Your task to perform on an android device: Is it going to rain today? Image 0: 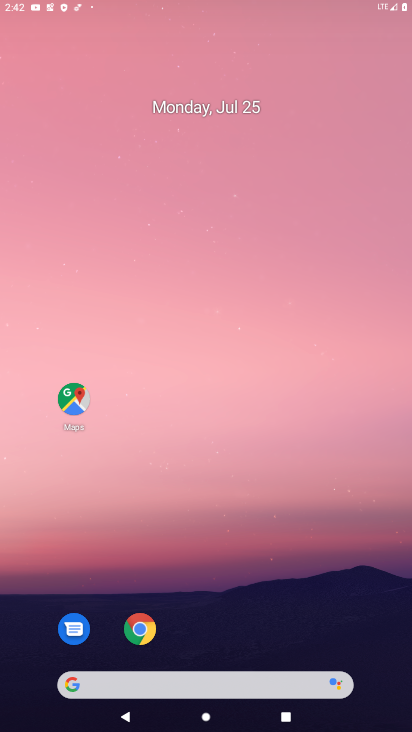
Step 0: click (312, 337)
Your task to perform on an android device: Is it going to rain today? Image 1: 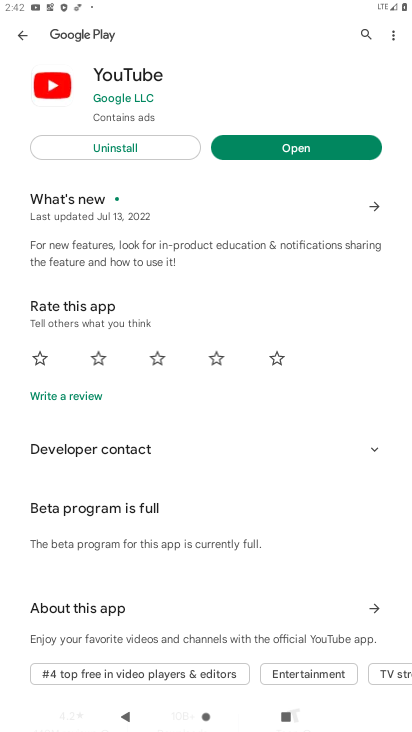
Step 1: drag from (240, 426) to (259, 142)
Your task to perform on an android device: Is it going to rain today? Image 2: 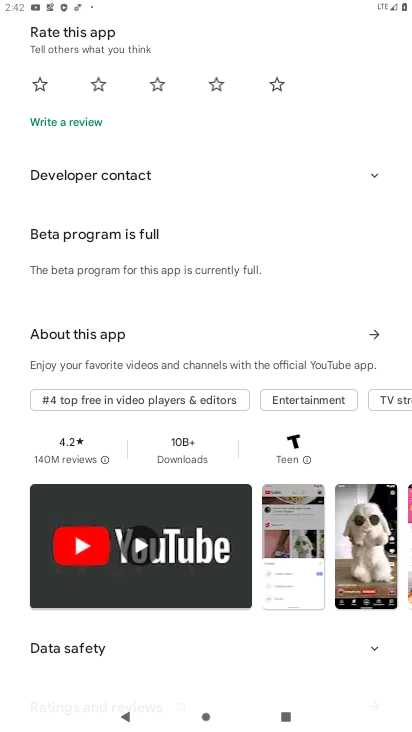
Step 2: drag from (265, 79) to (264, 479)
Your task to perform on an android device: Is it going to rain today? Image 3: 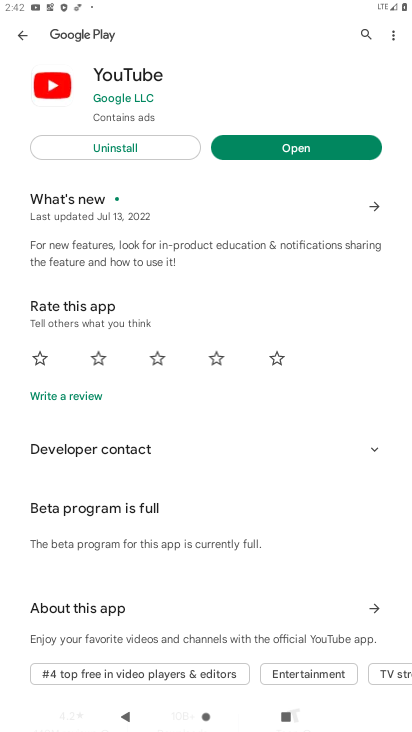
Step 3: press home button
Your task to perform on an android device: Is it going to rain today? Image 4: 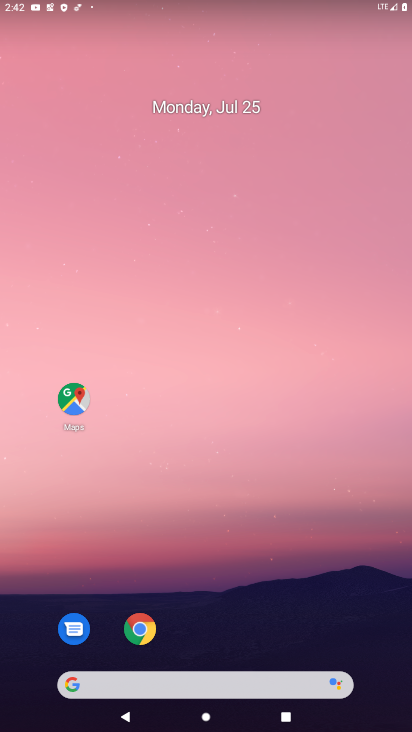
Step 4: drag from (194, 638) to (216, 298)
Your task to perform on an android device: Is it going to rain today? Image 5: 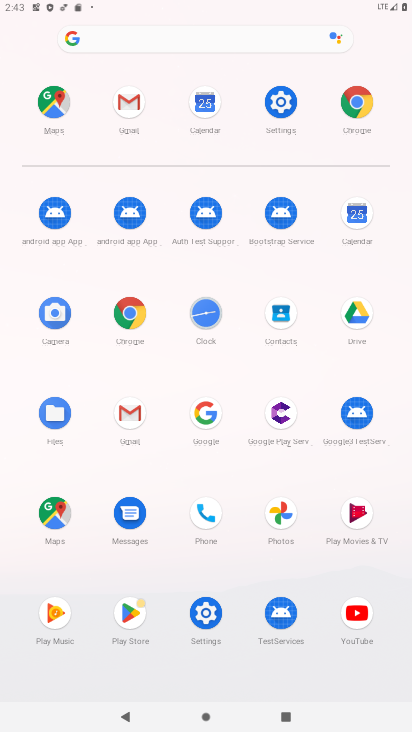
Step 5: type "Is it going to rain today?"
Your task to perform on an android device: Is it going to rain today? Image 6: 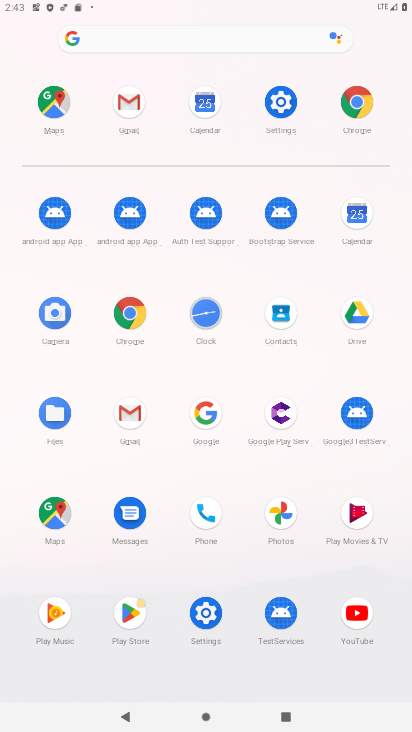
Step 6: click (152, 35)
Your task to perform on an android device: Is it going to rain today? Image 7: 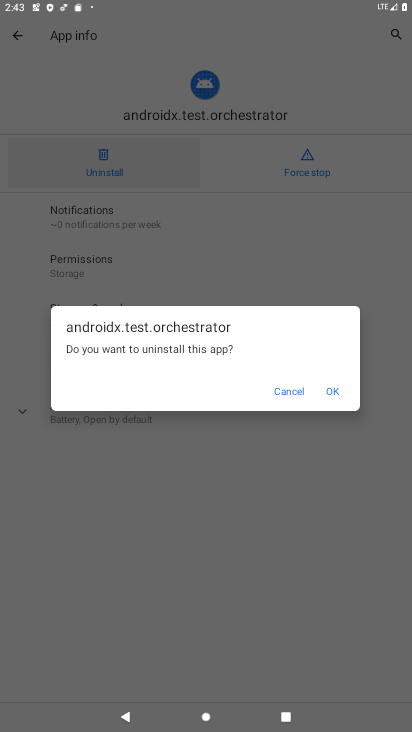
Step 7: click (104, 37)
Your task to perform on an android device: Is it going to rain today? Image 8: 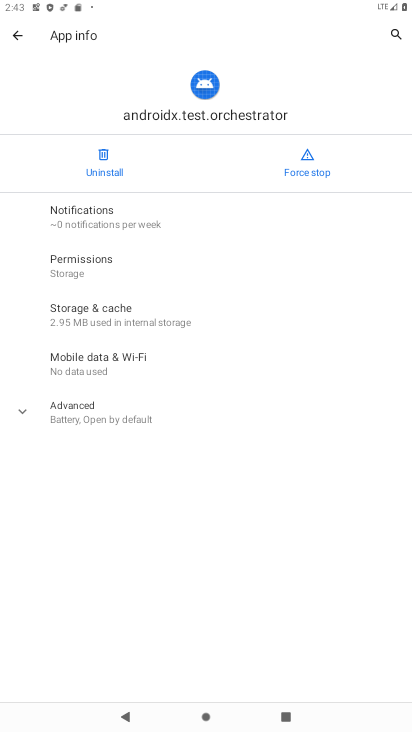
Step 8: click (16, 32)
Your task to perform on an android device: Is it going to rain today? Image 9: 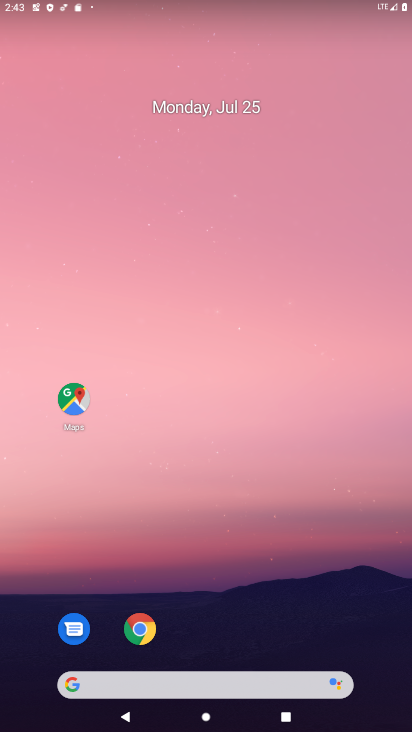
Step 9: drag from (203, 637) to (221, 117)
Your task to perform on an android device: Is it going to rain today? Image 10: 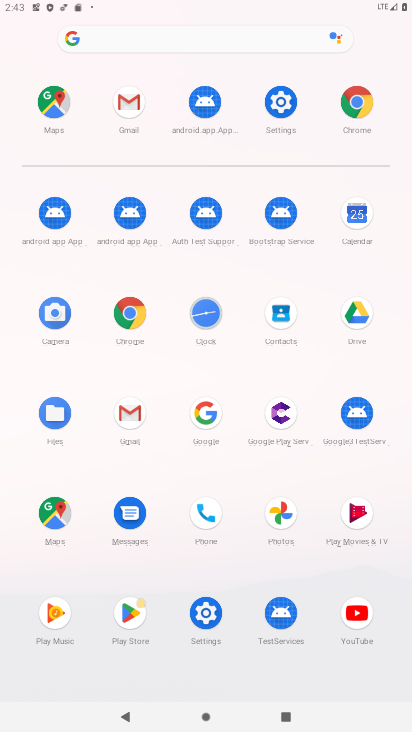
Step 10: click (139, 38)
Your task to perform on an android device: Is it going to rain today? Image 11: 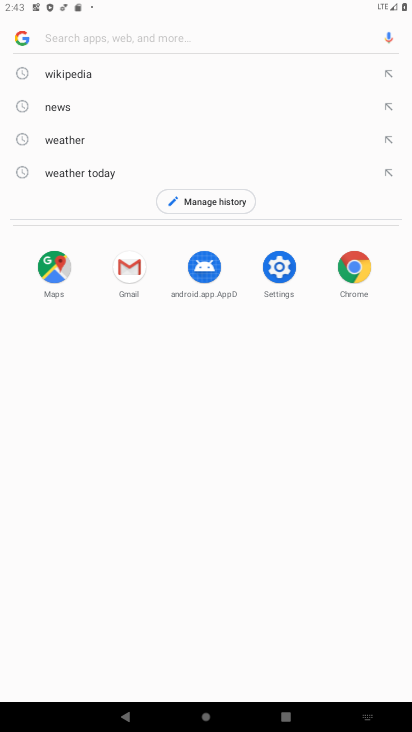
Step 11: type "Is it going to rain today?"
Your task to perform on an android device: Is it going to rain today? Image 12: 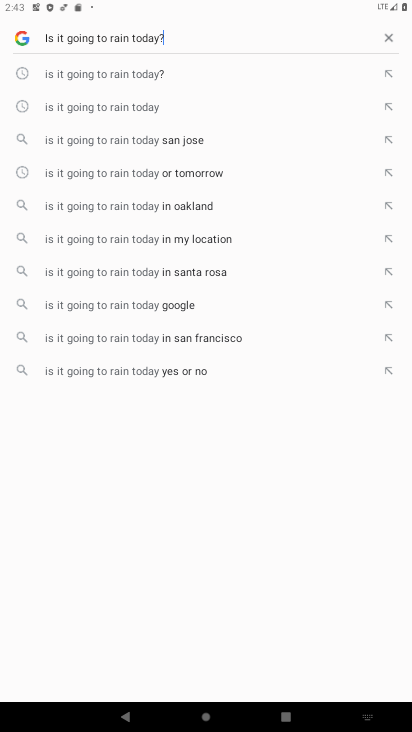
Step 12: type ""
Your task to perform on an android device: Is it going to rain today? Image 13: 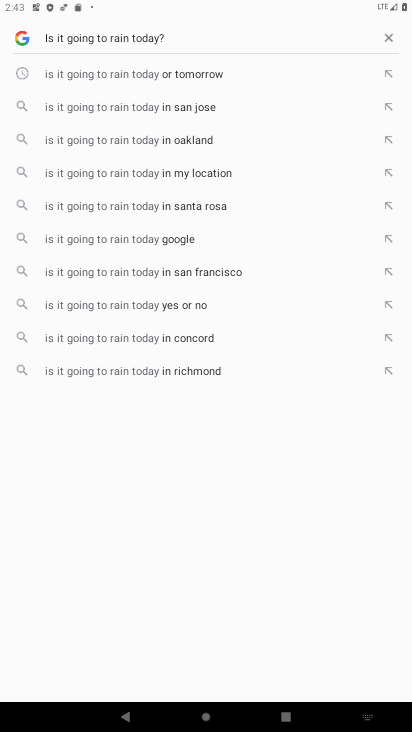
Step 13: click (125, 240)
Your task to perform on an android device: Is it going to rain today? Image 14: 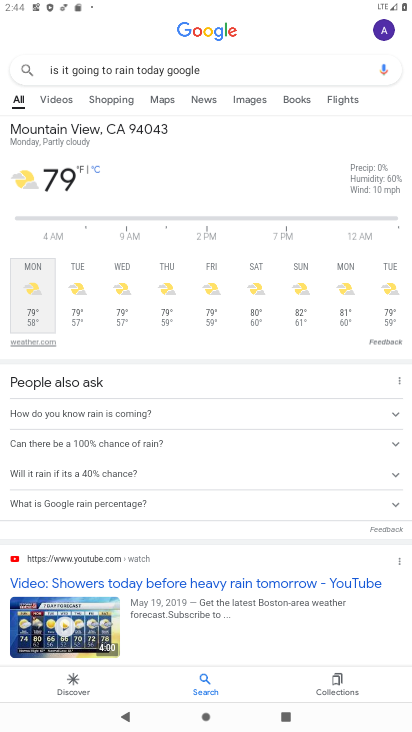
Step 14: task complete